Your task to perform on an android device: Open Google Maps and go to "Timeline" Image 0: 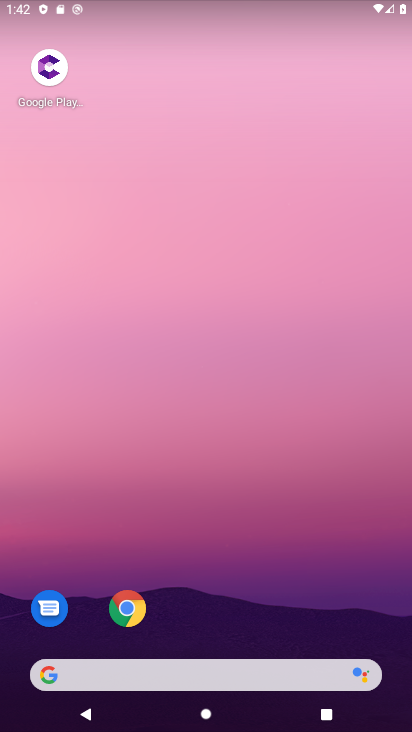
Step 0: press home button
Your task to perform on an android device: Open Google Maps and go to "Timeline" Image 1: 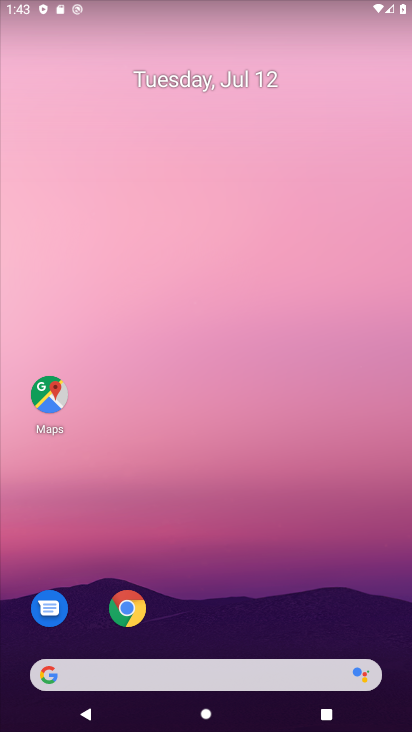
Step 1: drag from (216, 571) to (271, 0)
Your task to perform on an android device: Open Google Maps and go to "Timeline" Image 2: 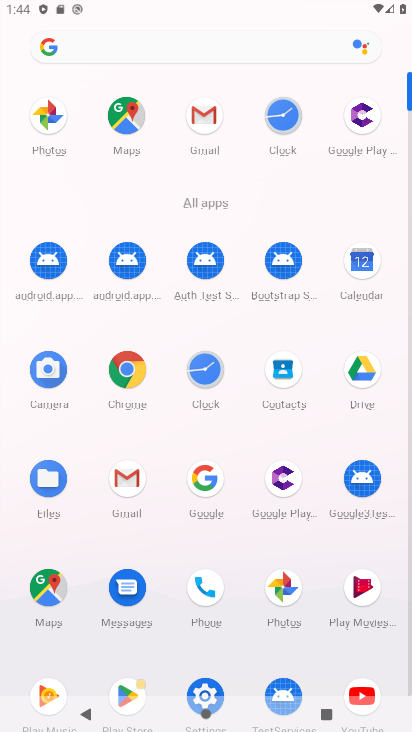
Step 2: click (42, 592)
Your task to perform on an android device: Open Google Maps and go to "Timeline" Image 3: 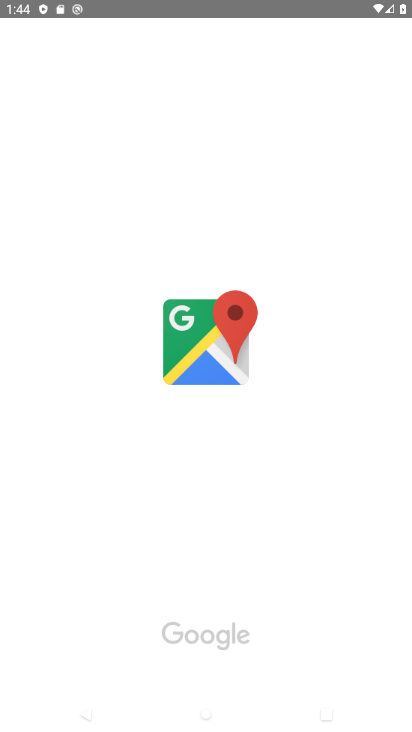
Step 3: click (42, 592)
Your task to perform on an android device: Open Google Maps and go to "Timeline" Image 4: 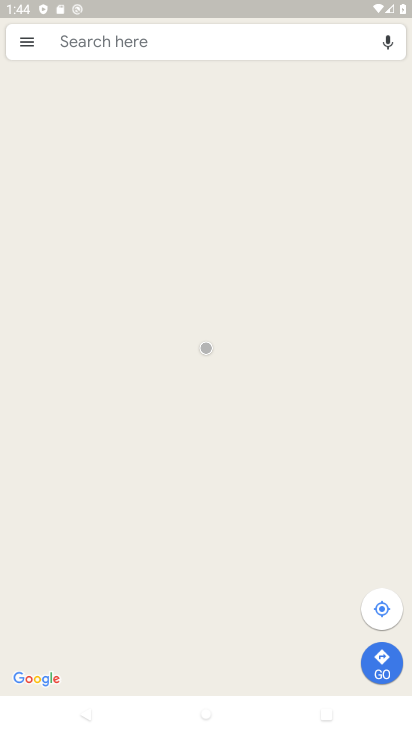
Step 4: task complete